Your task to perform on an android device: turn off airplane mode Image 0: 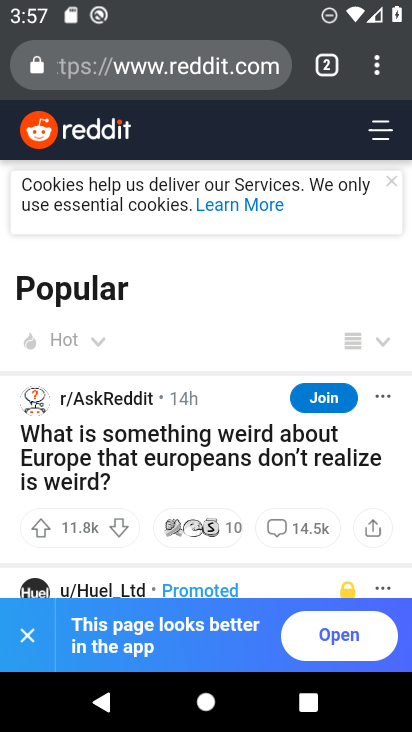
Step 0: drag from (271, 12) to (235, 458)
Your task to perform on an android device: turn off airplane mode Image 1: 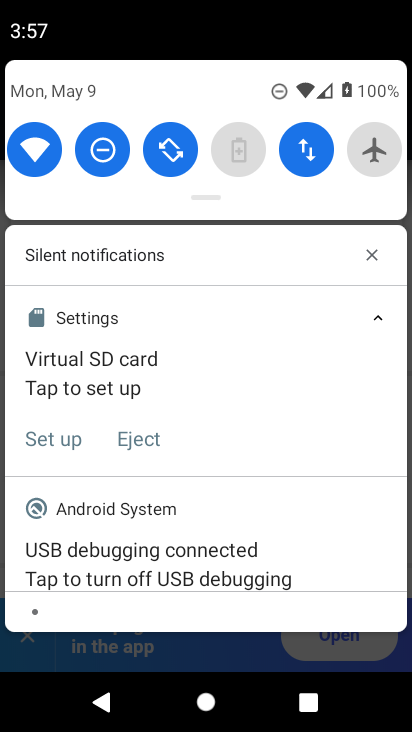
Step 1: task complete